Your task to perform on an android device: Go to internet settings Image 0: 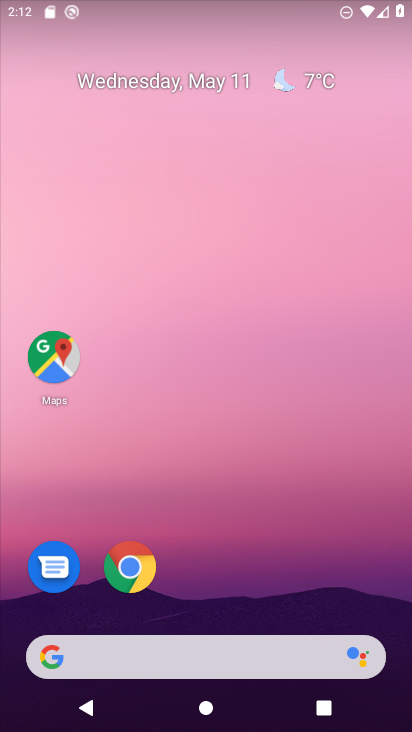
Step 0: drag from (270, 603) to (229, 296)
Your task to perform on an android device: Go to internet settings Image 1: 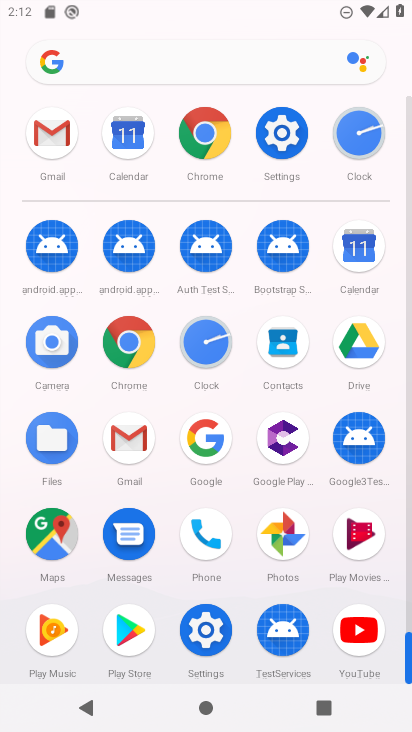
Step 1: click (289, 148)
Your task to perform on an android device: Go to internet settings Image 2: 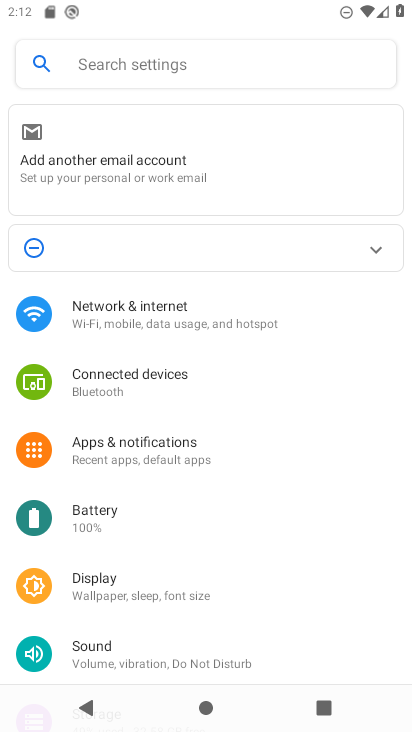
Step 2: click (143, 314)
Your task to perform on an android device: Go to internet settings Image 3: 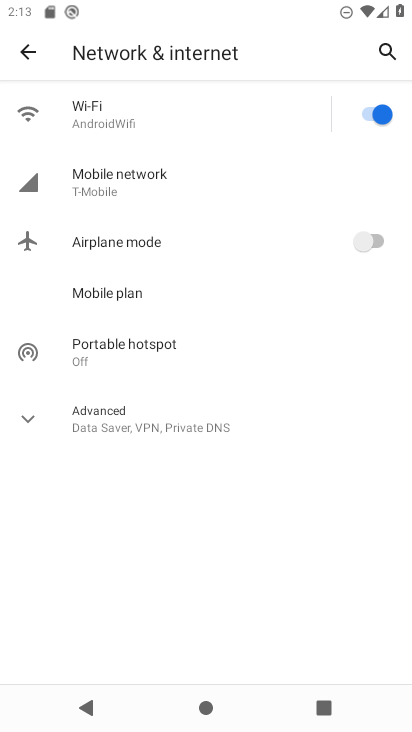
Step 3: task complete